Your task to perform on an android device: Show me productivity apps on the Play Store Image 0: 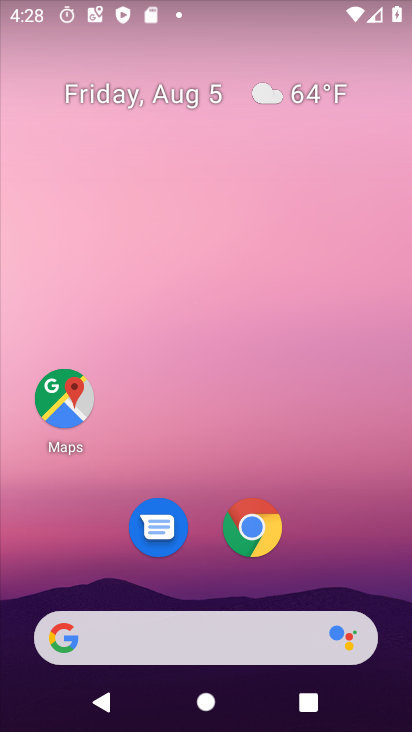
Step 0: press home button
Your task to perform on an android device: Show me productivity apps on the Play Store Image 1: 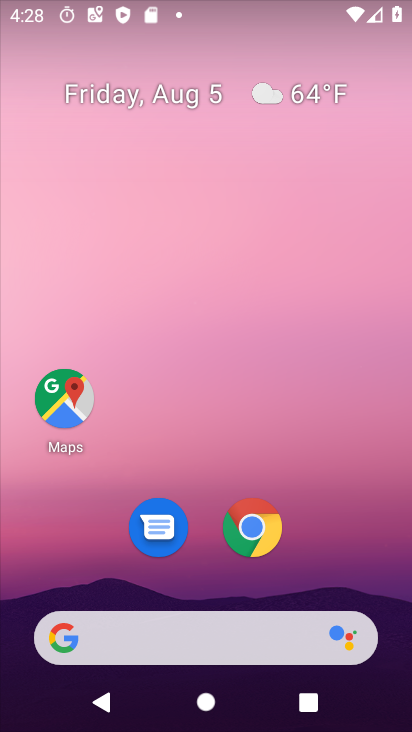
Step 1: drag from (206, 585) to (236, 107)
Your task to perform on an android device: Show me productivity apps on the Play Store Image 2: 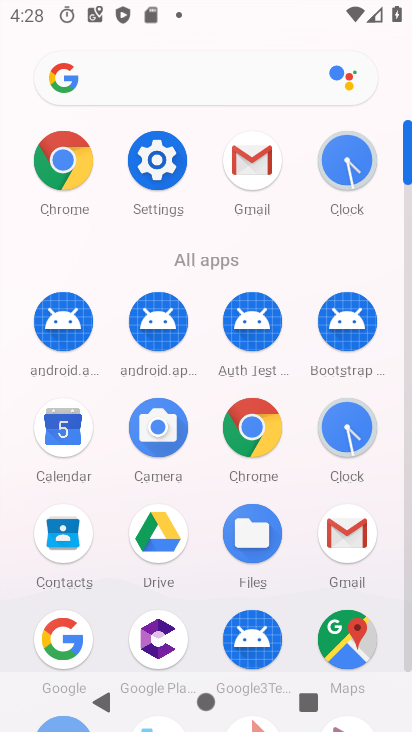
Step 2: drag from (203, 604) to (193, 100)
Your task to perform on an android device: Show me productivity apps on the Play Store Image 3: 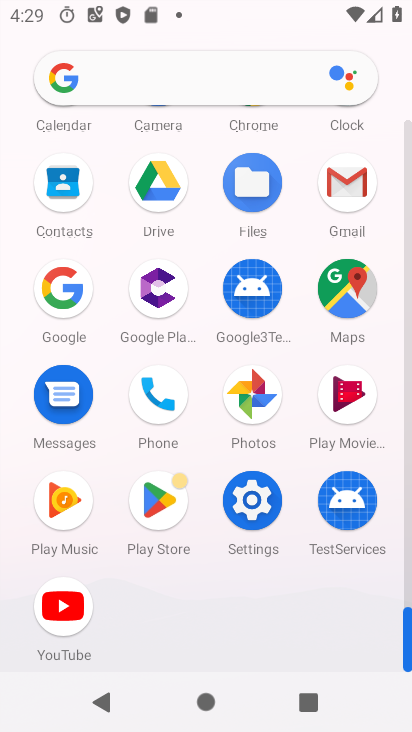
Step 3: click (151, 493)
Your task to perform on an android device: Show me productivity apps on the Play Store Image 4: 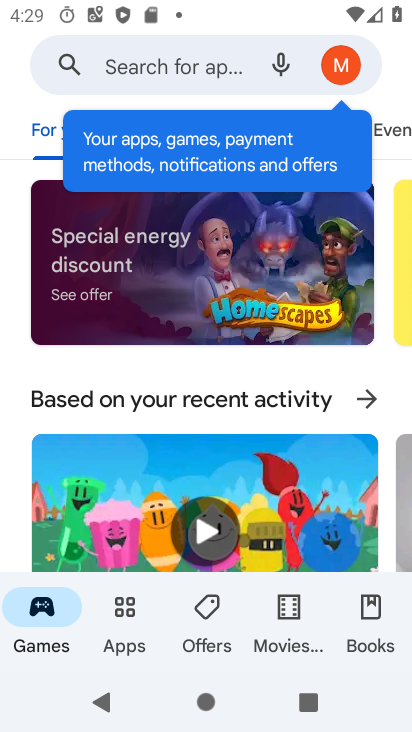
Step 4: click (124, 608)
Your task to perform on an android device: Show me productivity apps on the Play Store Image 5: 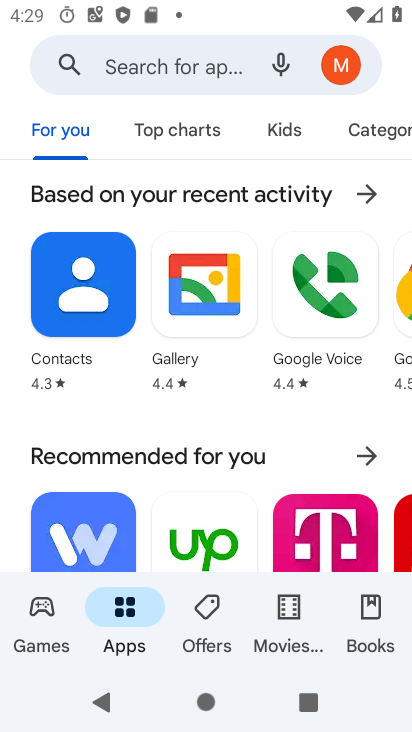
Step 5: click (364, 128)
Your task to perform on an android device: Show me productivity apps on the Play Store Image 6: 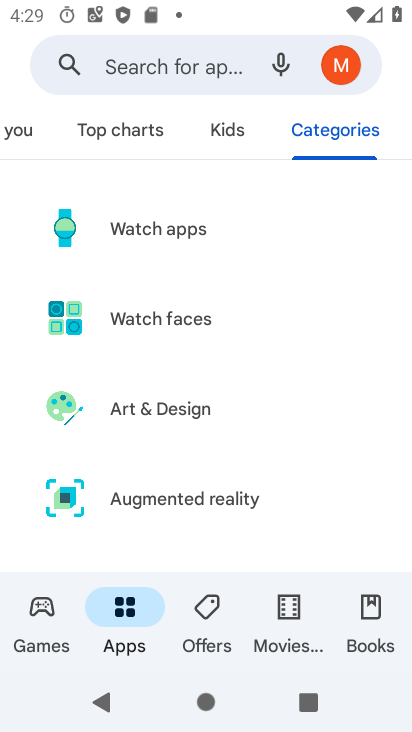
Step 6: drag from (191, 509) to (210, 142)
Your task to perform on an android device: Show me productivity apps on the Play Store Image 7: 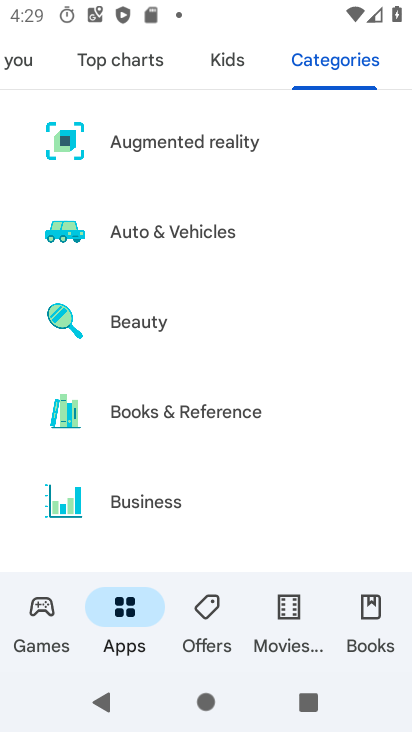
Step 7: drag from (222, 513) to (231, 56)
Your task to perform on an android device: Show me productivity apps on the Play Store Image 8: 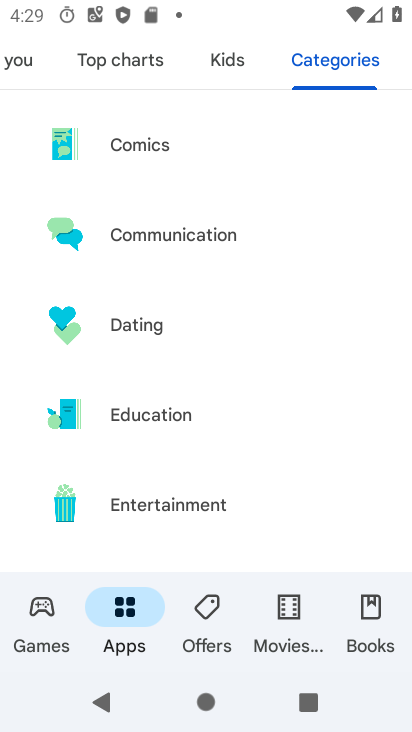
Step 8: drag from (244, 528) to (251, 91)
Your task to perform on an android device: Show me productivity apps on the Play Store Image 9: 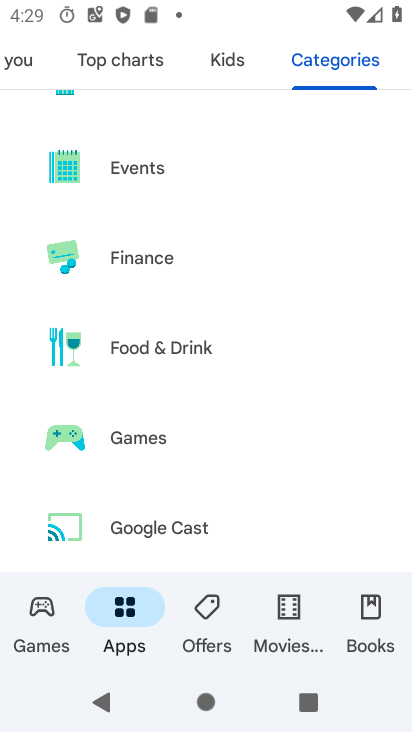
Step 9: drag from (223, 503) to (238, 102)
Your task to perform on an android device: Show me productivity apps on the Play Store Image 10: 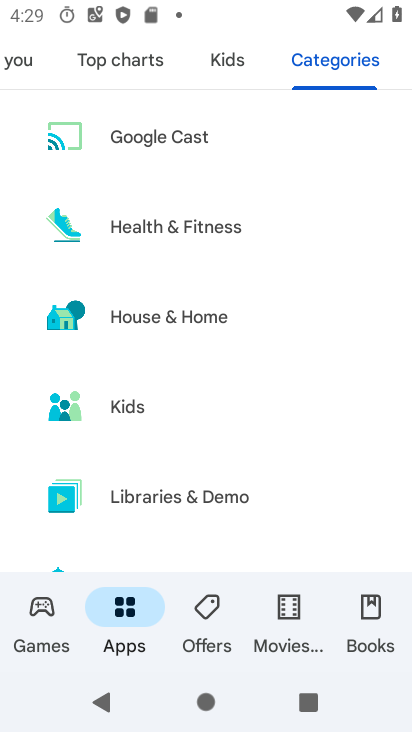
Step 10: drag from (242, 513) to (240, 89)
Your task to perform on an android device: Show me productivity apps on the Play Store Image 11: 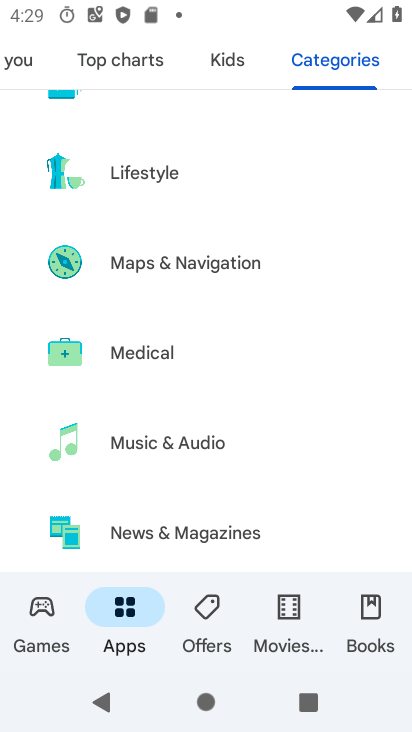
Step 11: drag from (207, 520) to (225, 74)
Your task to perform on an android device: Show me productivity apps on the Play Store Image 12: 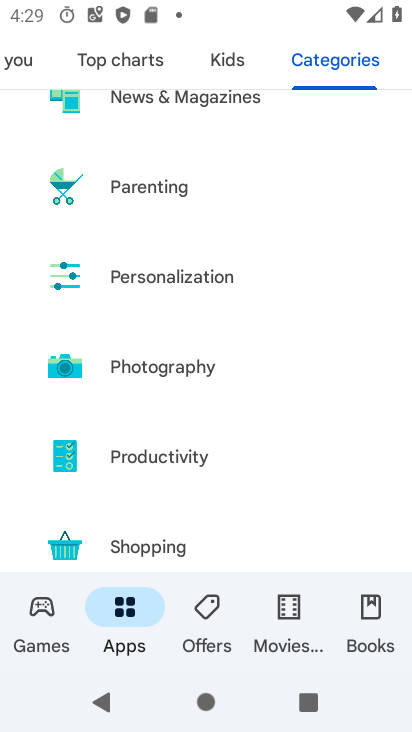
Step 12: click (203, 457)
Your task to perform on an android device: Show me productivity apps on the Play Store Image 13: 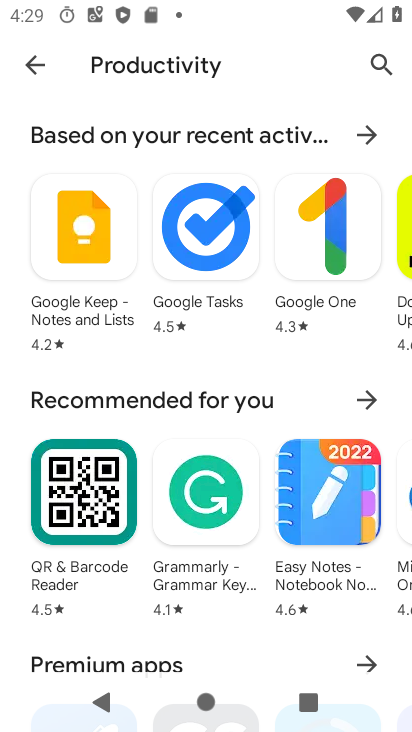
Step 13: task complete